Your task to perform on an android device: Open accessibility settings Image 0: 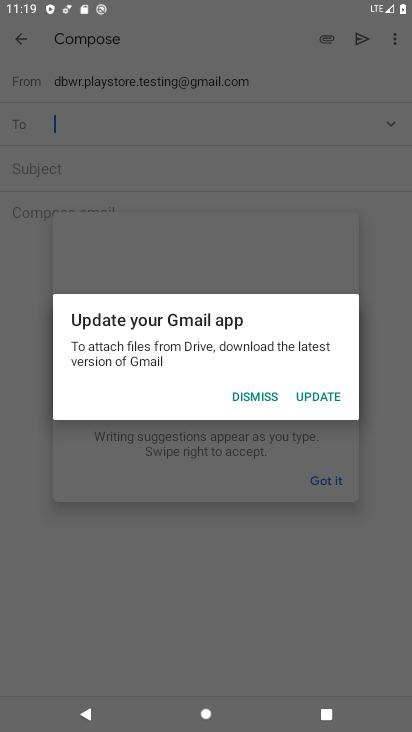
Step 0: press home button
Your task to perform on an android device: Open accessibility settings Image 1: 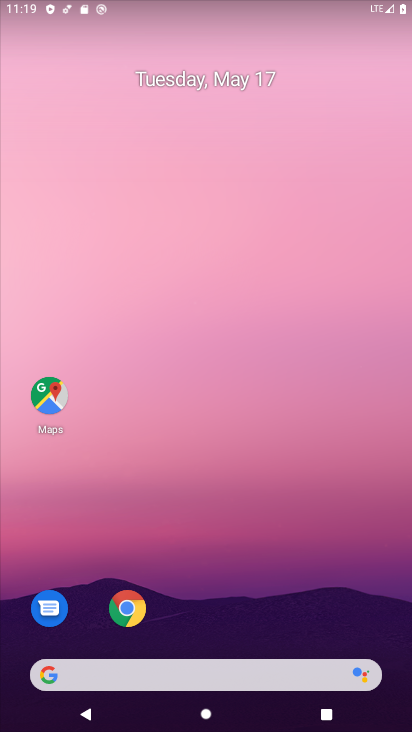
Step 1: drag from (272, 599) to (175, 80)
Your task to perform on an android device: Open accessibility settings Image 2: 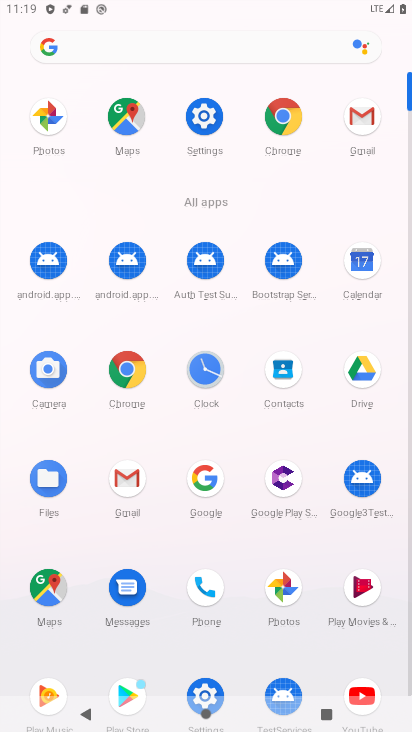
Step 2: click (201, 116)
Your task to perform on an android device: Open accessibility settings Image 3: 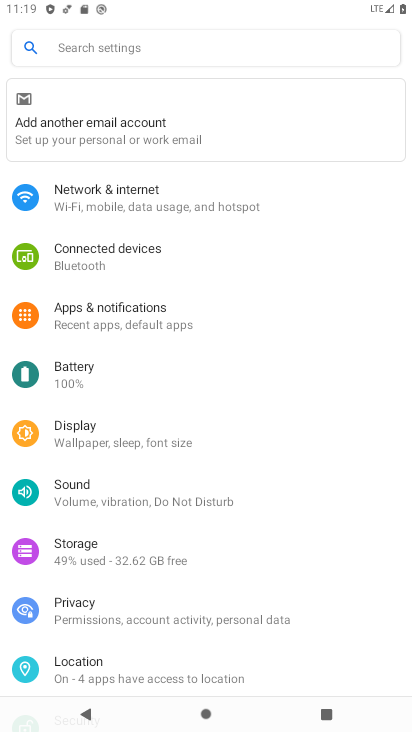
Step 3: drag from (176, 571) to (194, 167)
Your task to perform on an android device: Open accessibility settings Image 4: 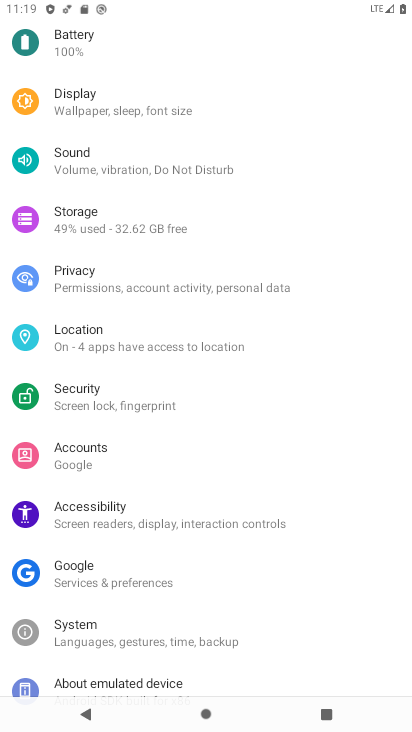
Step 4: click (142, 505)
Your task to perform on an android device: Open accessibility settings Image 5: 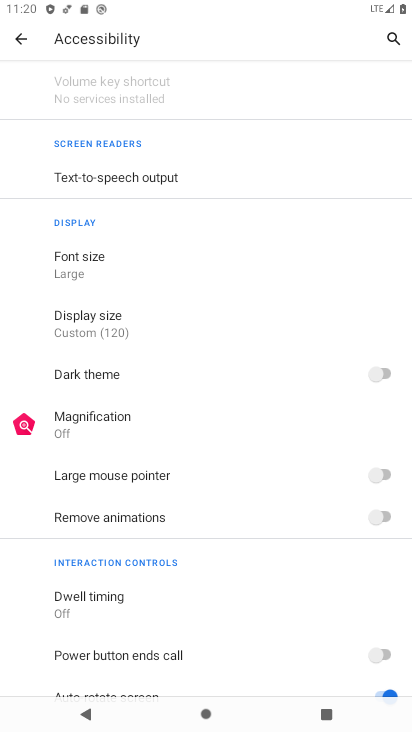
Step 5: task complete